Your task to perform on an android device: open app "Adobe Express: Graphic Design" Image 0: 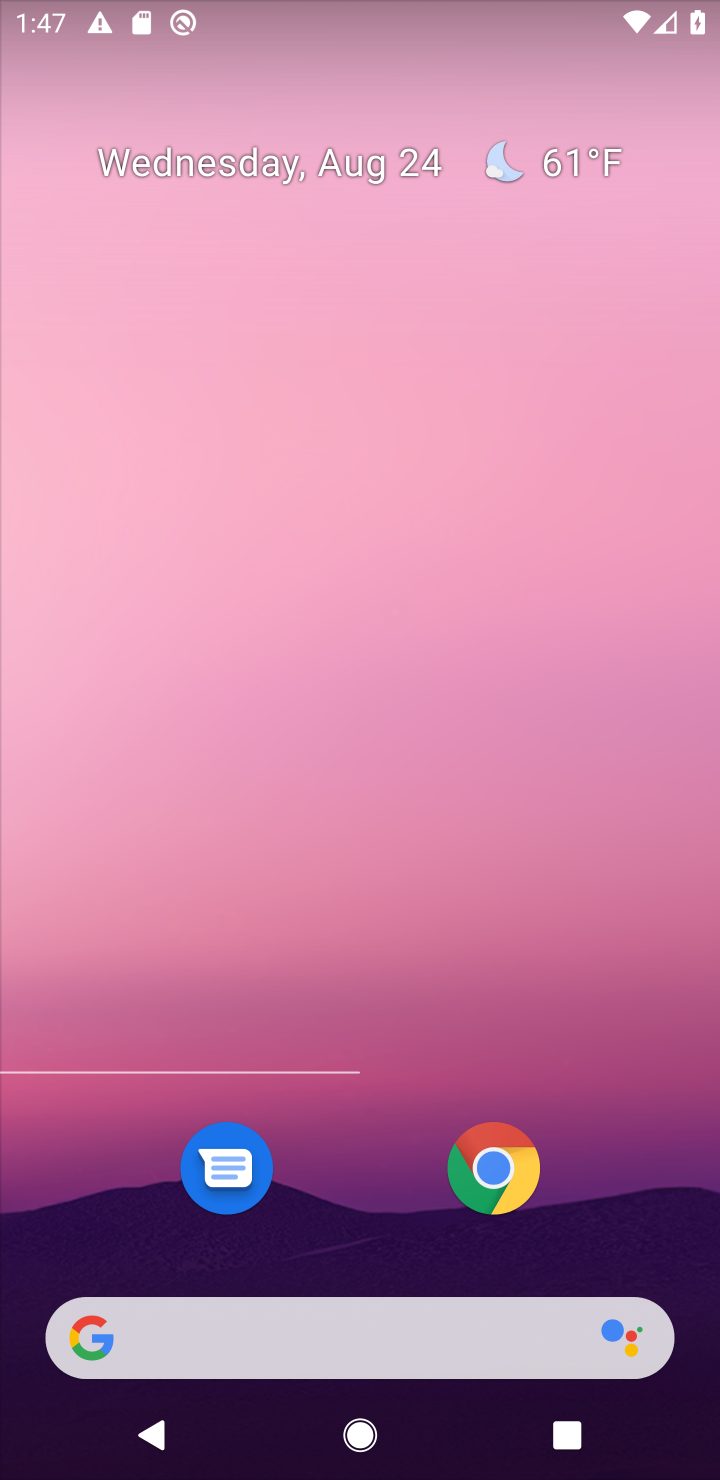
Step 0: press home button
Your task to perform on an android device: open app "Adobe Express: Graphic Design" Image 1: 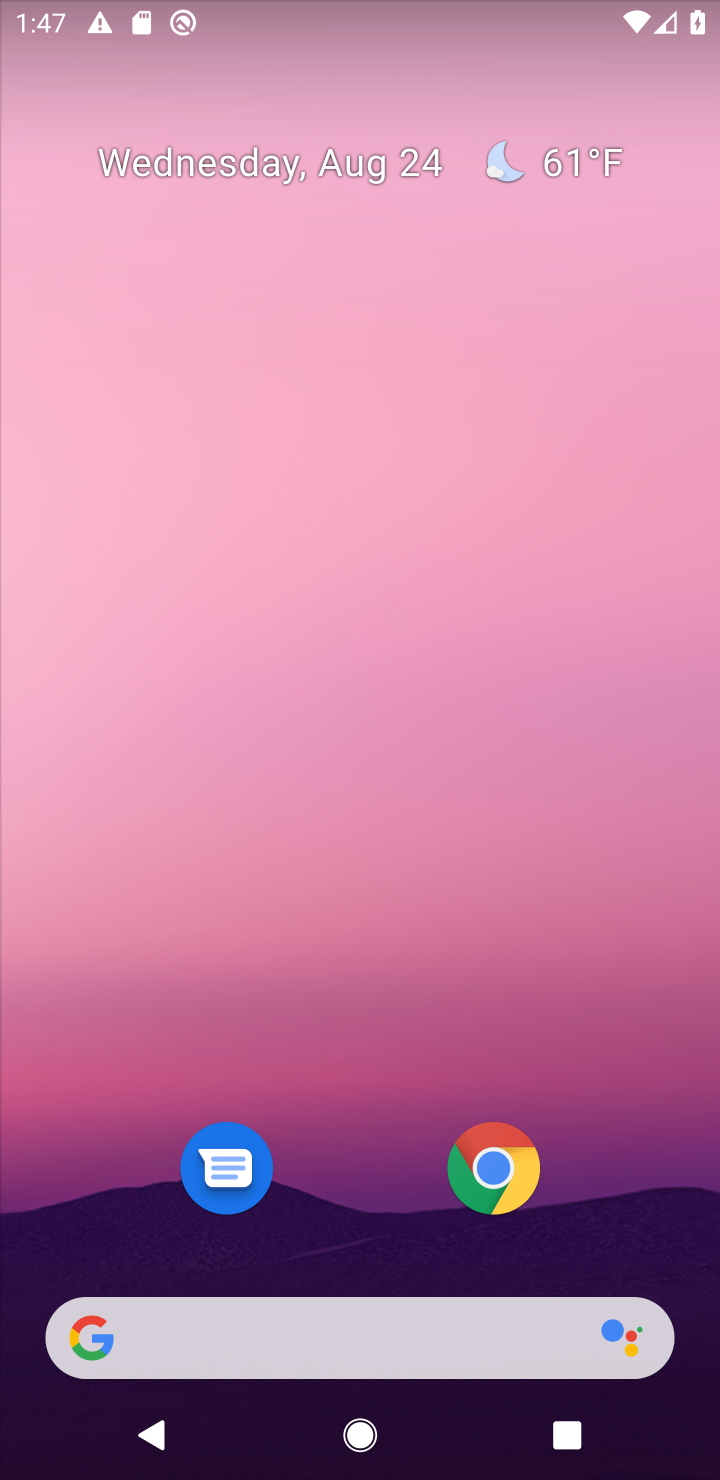
Step 1: drag from (680, 1235) to (616, 207)
Your task to perform on an android device: open app "Adobe Express: Graphic Design" Image 2: 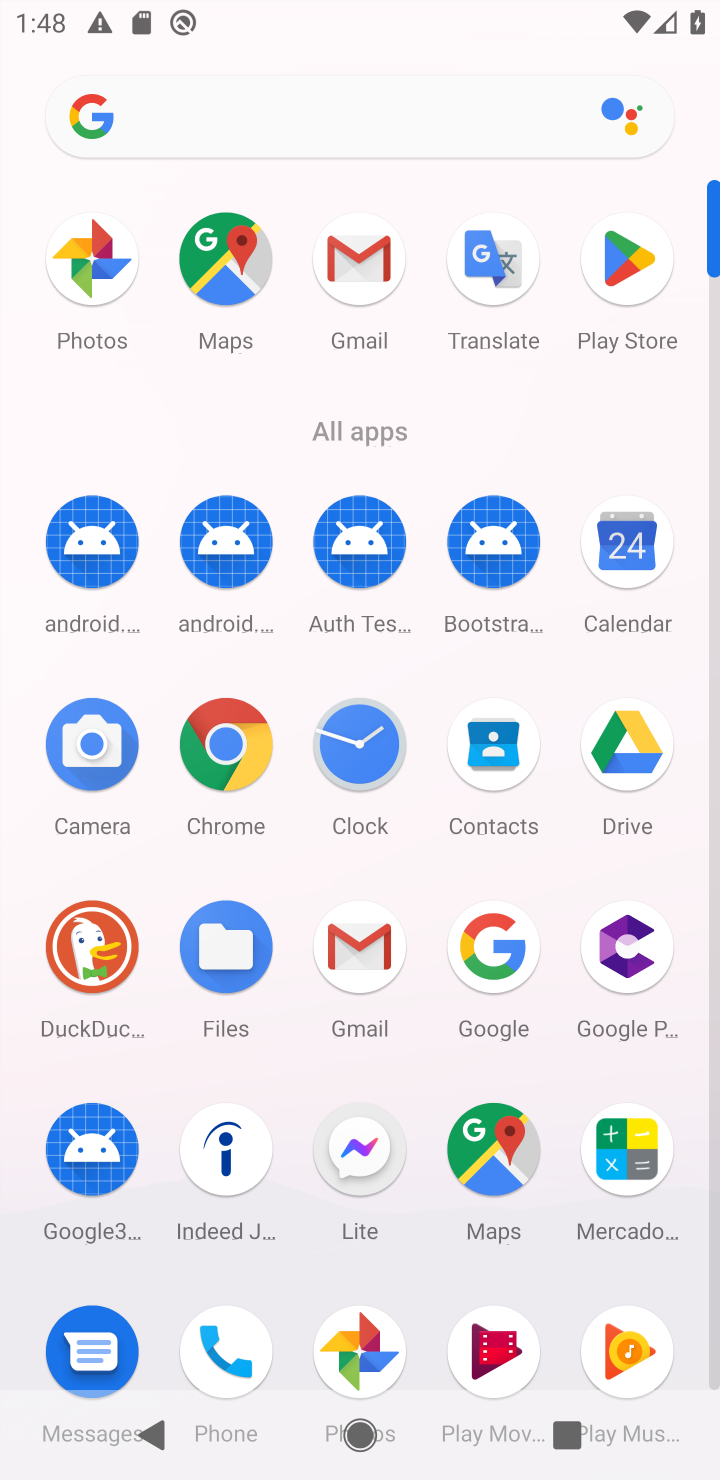
Step 2: click (714, 1351)
Your task to perform on an android device: open app "Adobe Express: Graphic Design" Image 3: 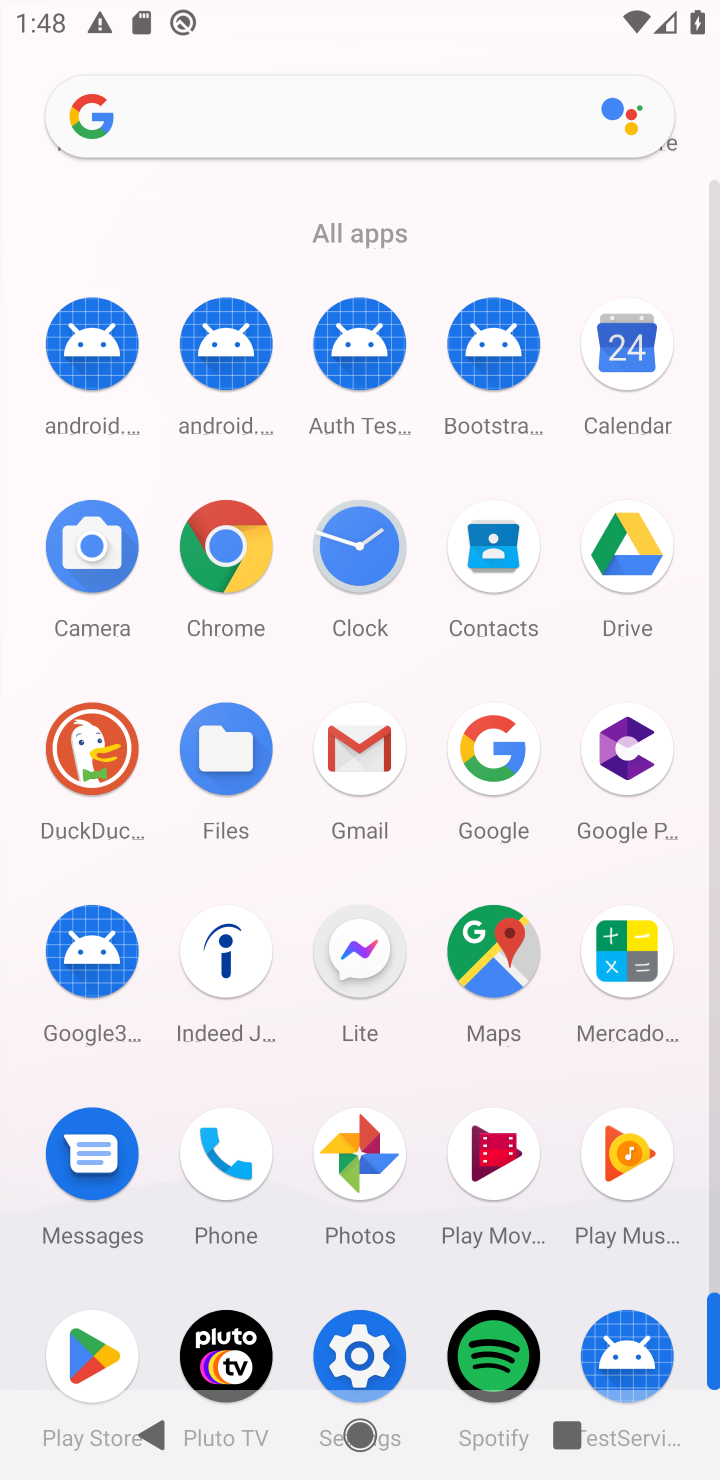
Step 3: click (91, 1351)
Your task to perform on an android device: open app "Adobe Express: Graphic Design" Image 4: 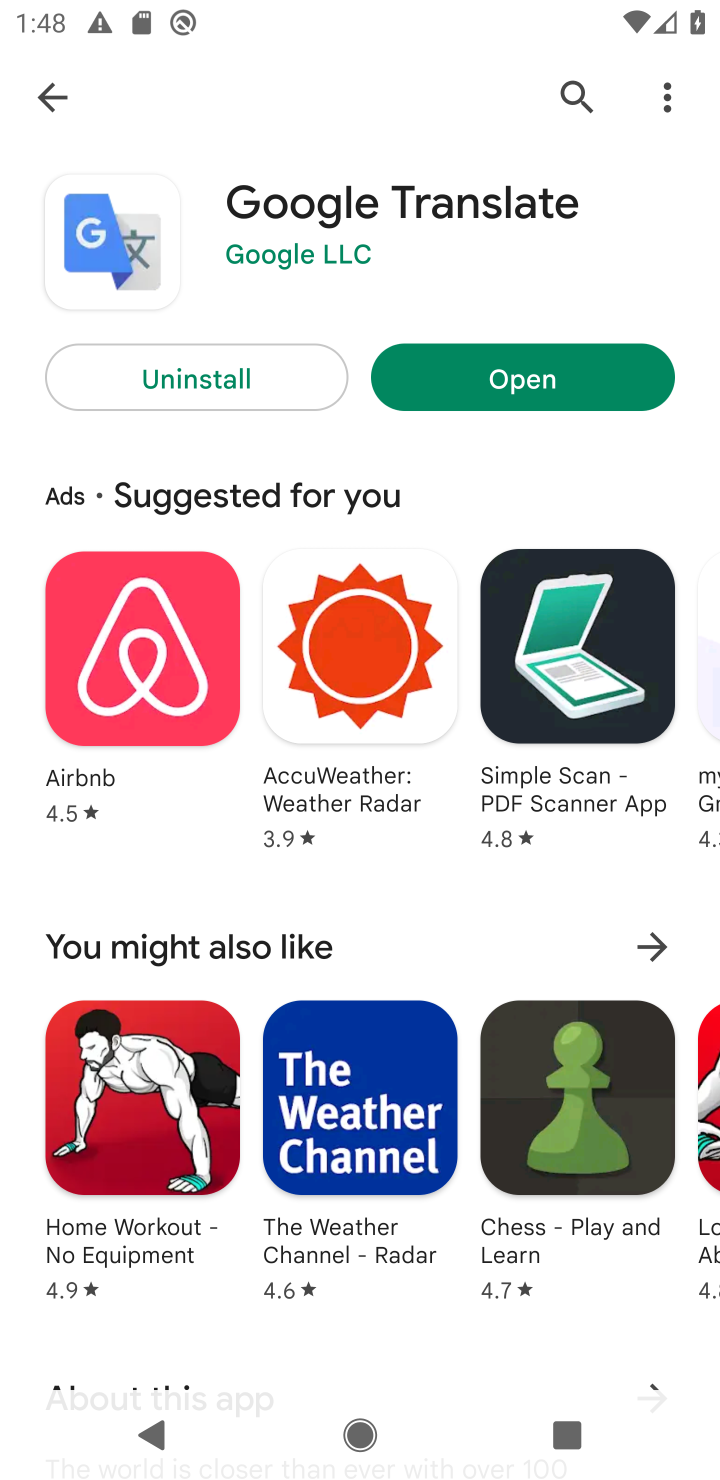
Step 4: click (572, 80)
Your task to perform on an android device: open app "Adobe Express: Graphic Design" Image 5: 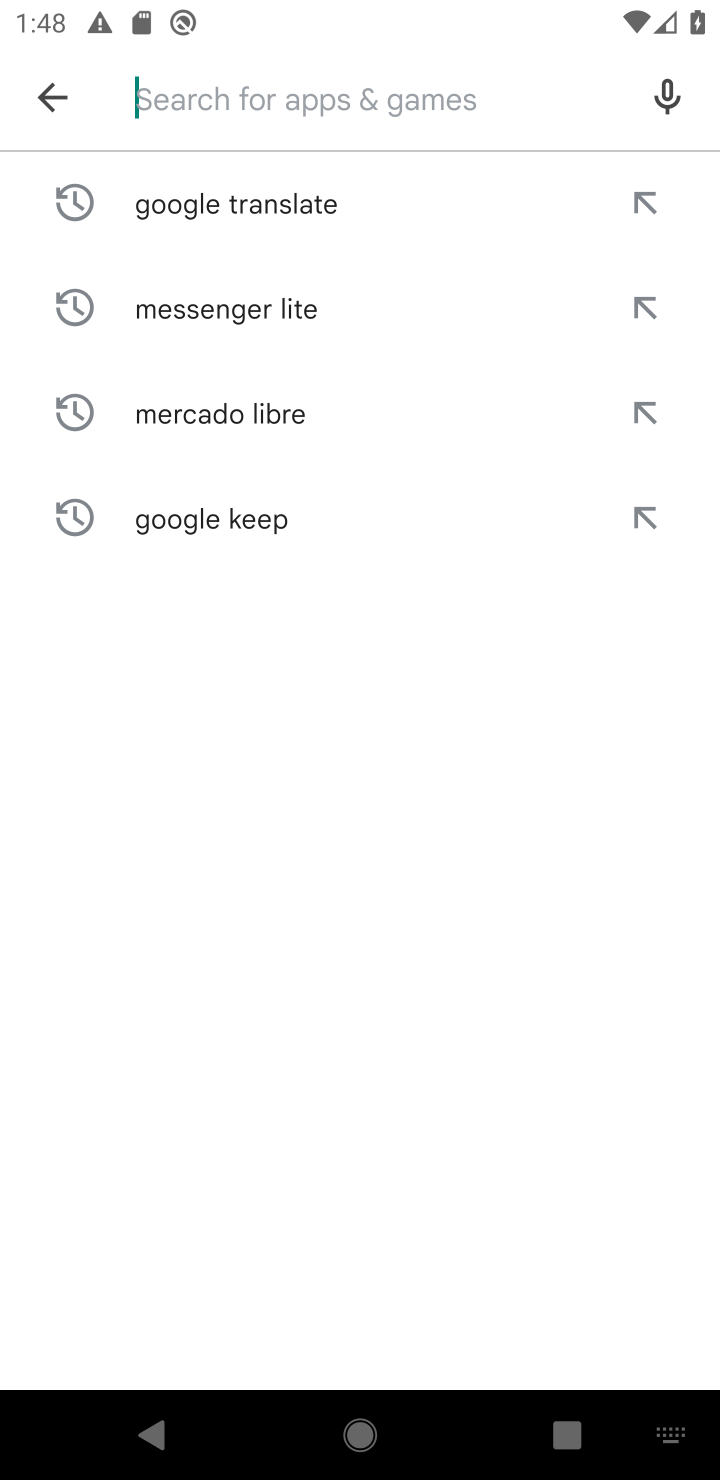
Step 5: type "Adobe Express: Graphic Design"
Your task to perform on an android device: open app "Adobe Express: Graphic Design" Image 6: 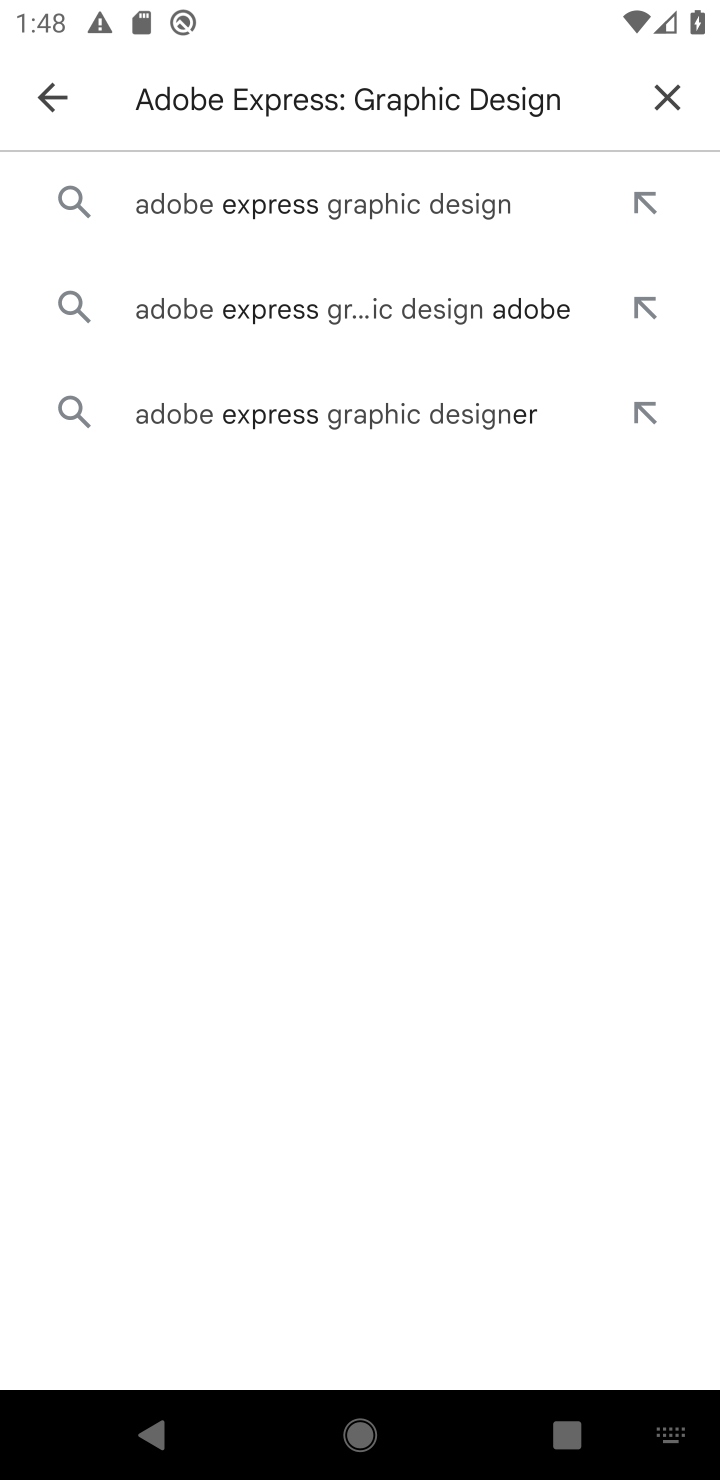
Step 6: click (335, 198)
Your task to perform on an android device: open app "Adobe Express: Graphic Design" Image 7: 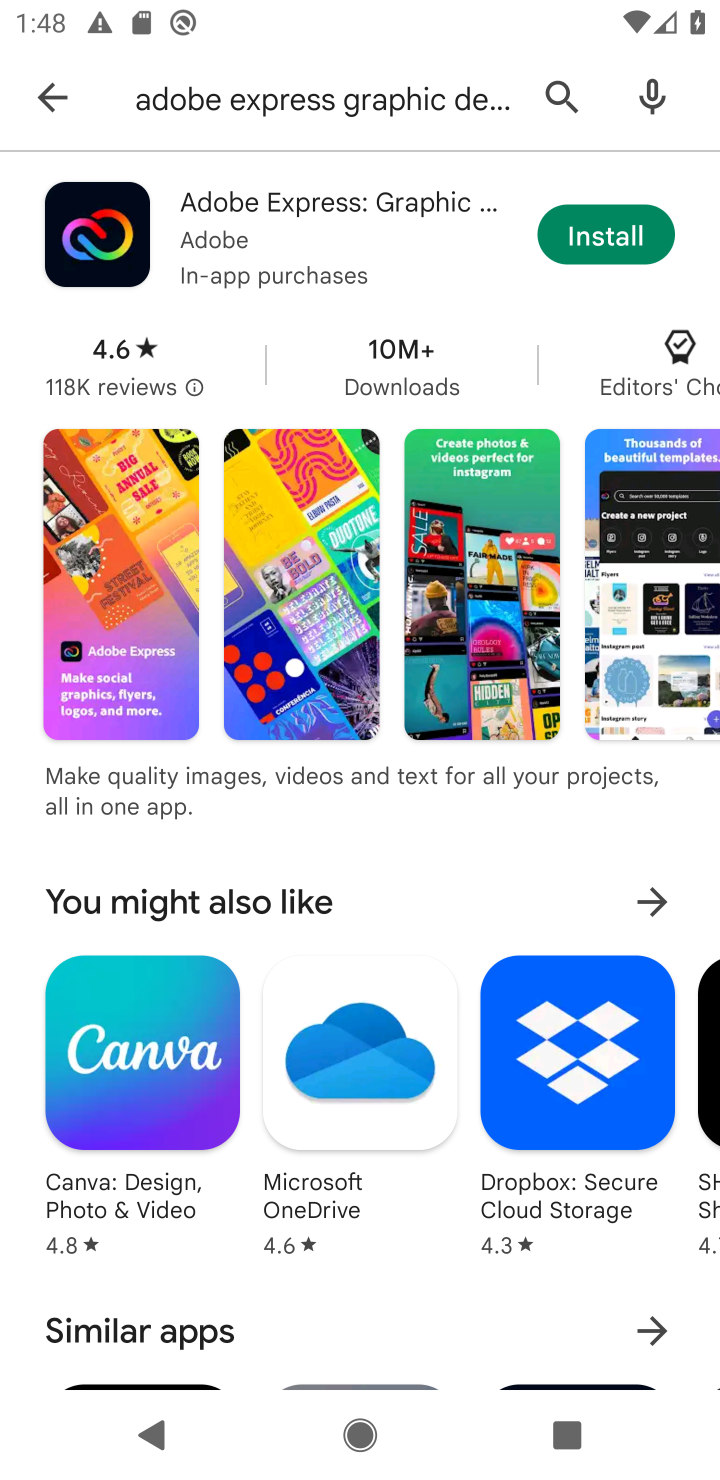
Step 7: task complete